Your task to perform on an android device: Search for sushi restaurants on Maps Image 0: 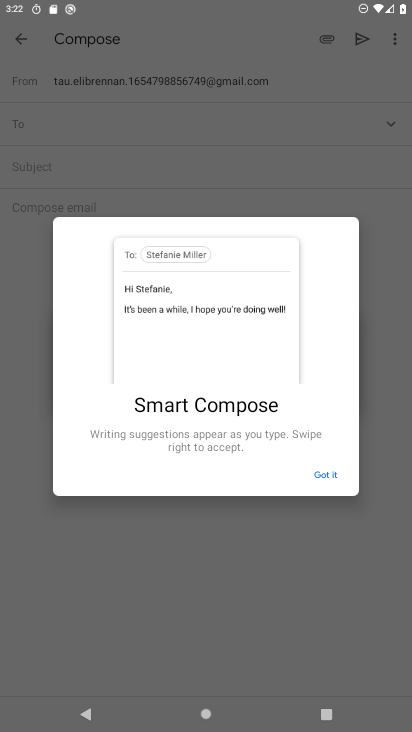
Step 0: press home button
Your task to perform on an android device: Search for sushi restaurants on Maps Image 1: 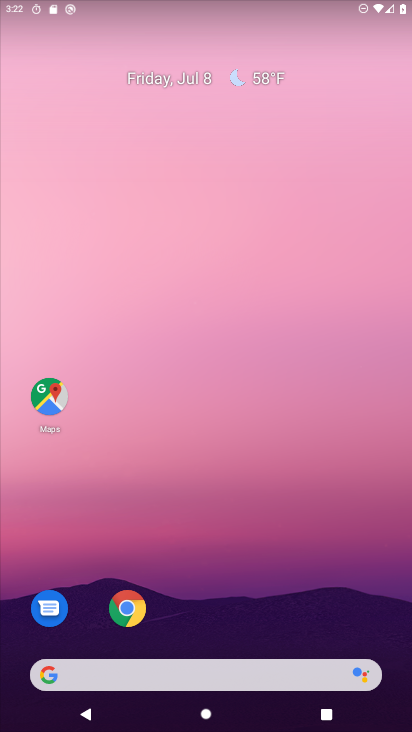
Step 1: drag from (230, 708) to (196, 80)
Your task to perform on an android device: Search for sushi restaurants on Maps Image 2: 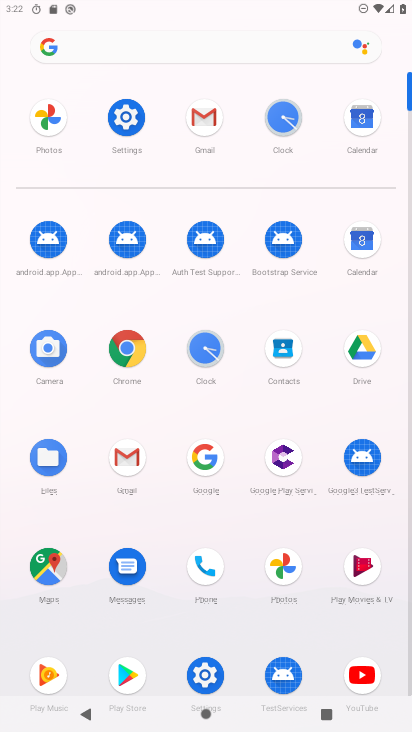
Step 2: click (44, 566)
Your task to perform on an android device: Search for sushi restaurants on Maps Image 3: 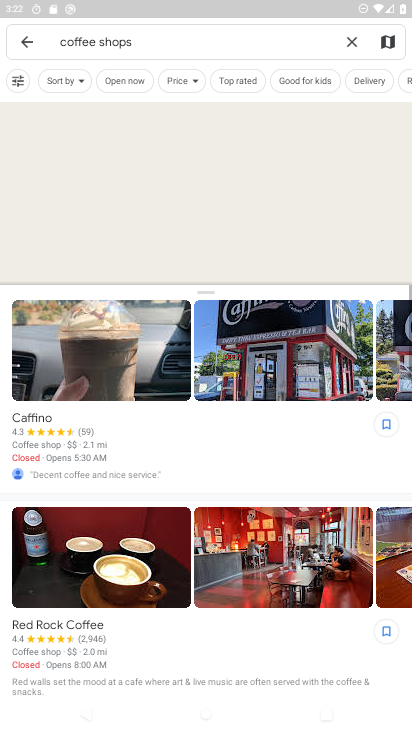
Step 3: click (242, 37)
Your task to perform on an android device: Search for sushi restaurants on Maps Image 4: 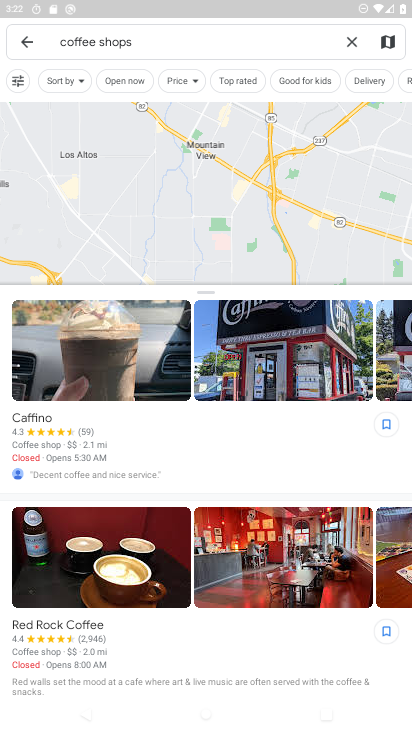
Step 4: click (350, 41)
Your task to perform on an android device: Search for sushi restaurants on Maps Image 5: 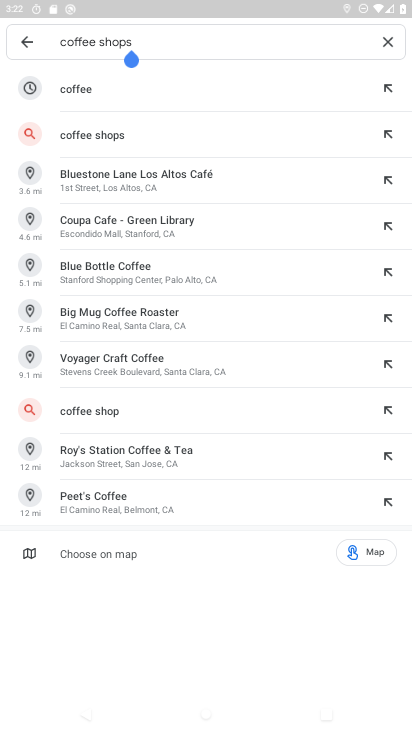
Step 5: click (384, 39)
Your task to perform on an android device: Search for sushi restaurants on Maps Image 6: 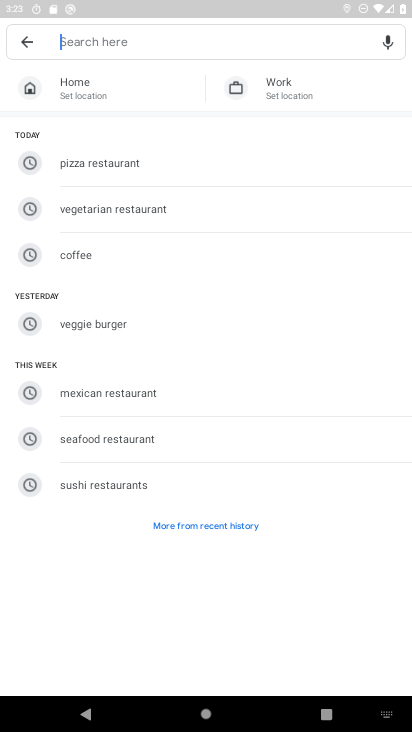
Step 6: type "Sushi restaurants"
Your task to perform on an android device: Search for sushi restaurants on Maps Image 7: 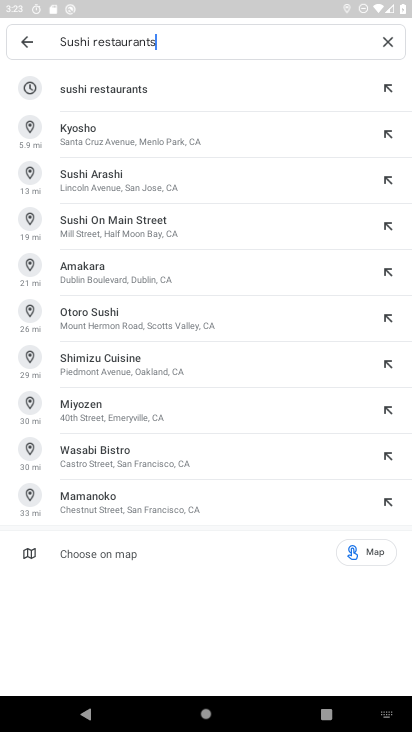
Step 7: click (128, 86)
Your task to perform on an android device: Search for sushi restaurants on Maps Image 8: 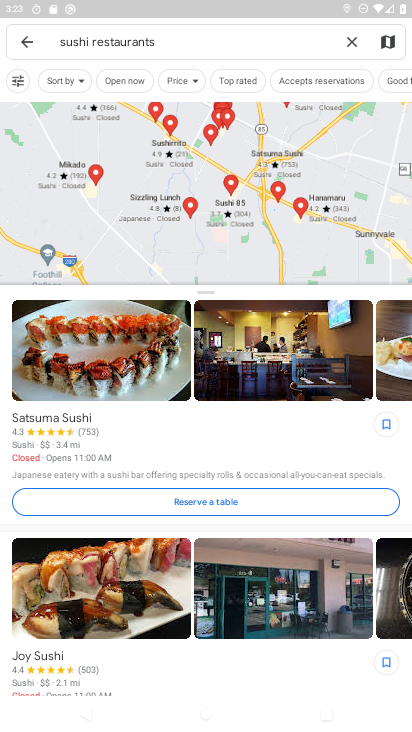
Step 8: task complete